Your task to perform on an android device: Add alienware aurora to the cart on target.com Image 0: 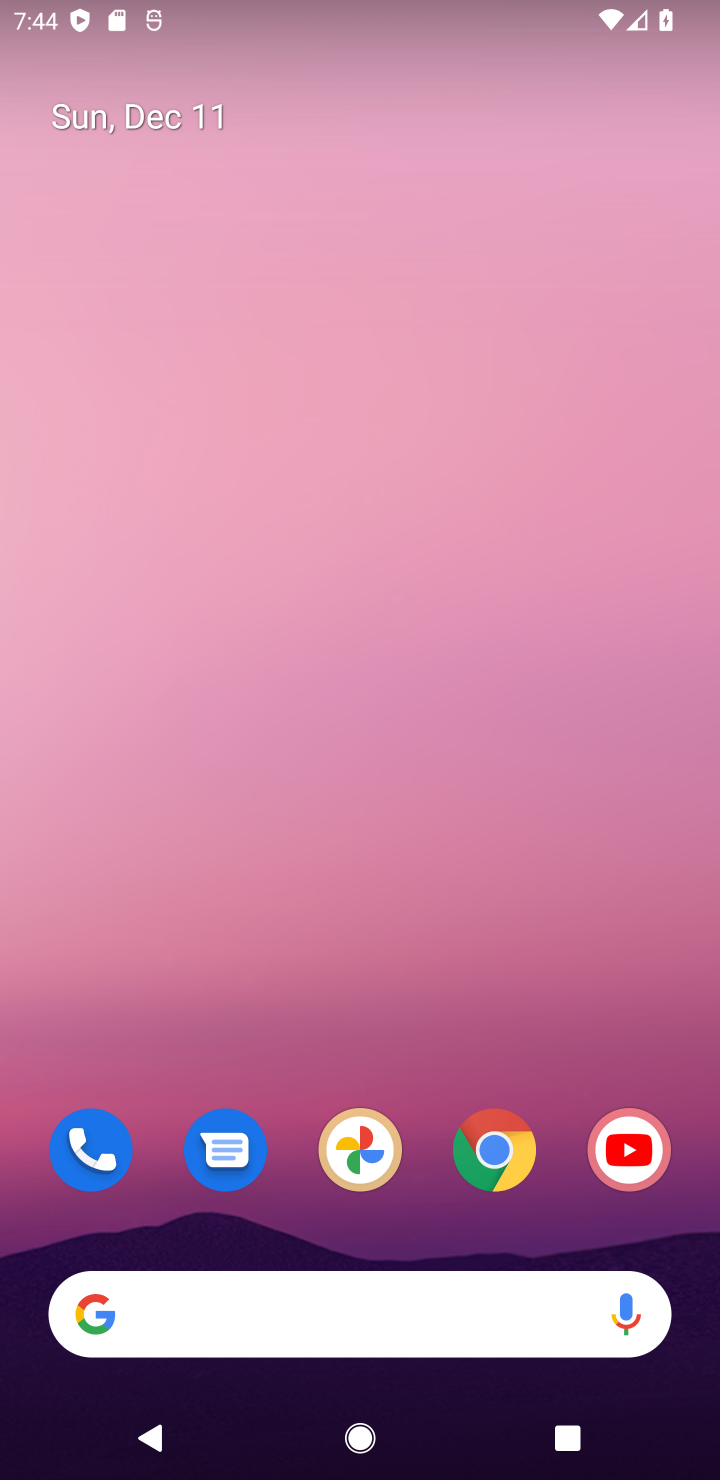
Step 0: click (495, 1152)
Your task to perform on an android device: Add alienware aurora to the cart on target.com Image 1: 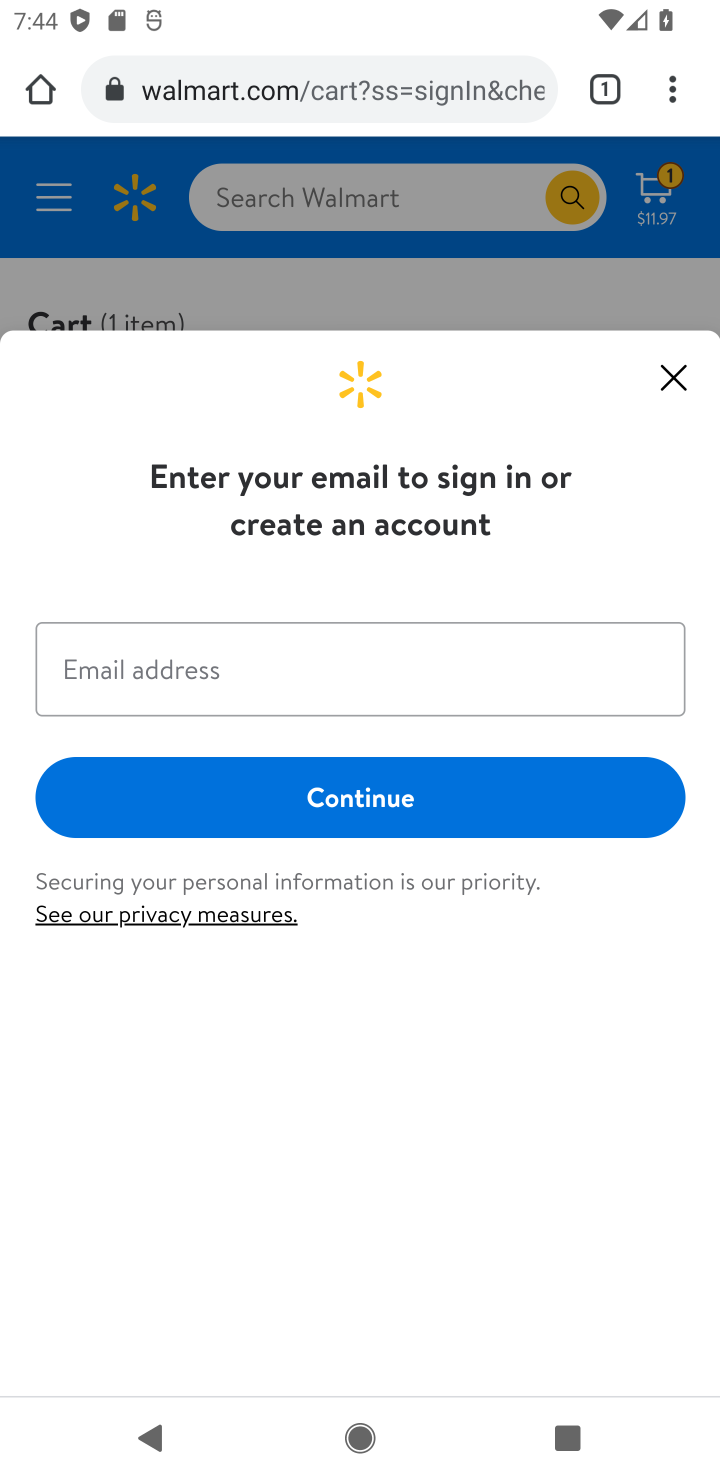
Step 1: click (338, 77)
Your task to perform on an android device: Add alienware aurora to the cart on target.com Image 2: 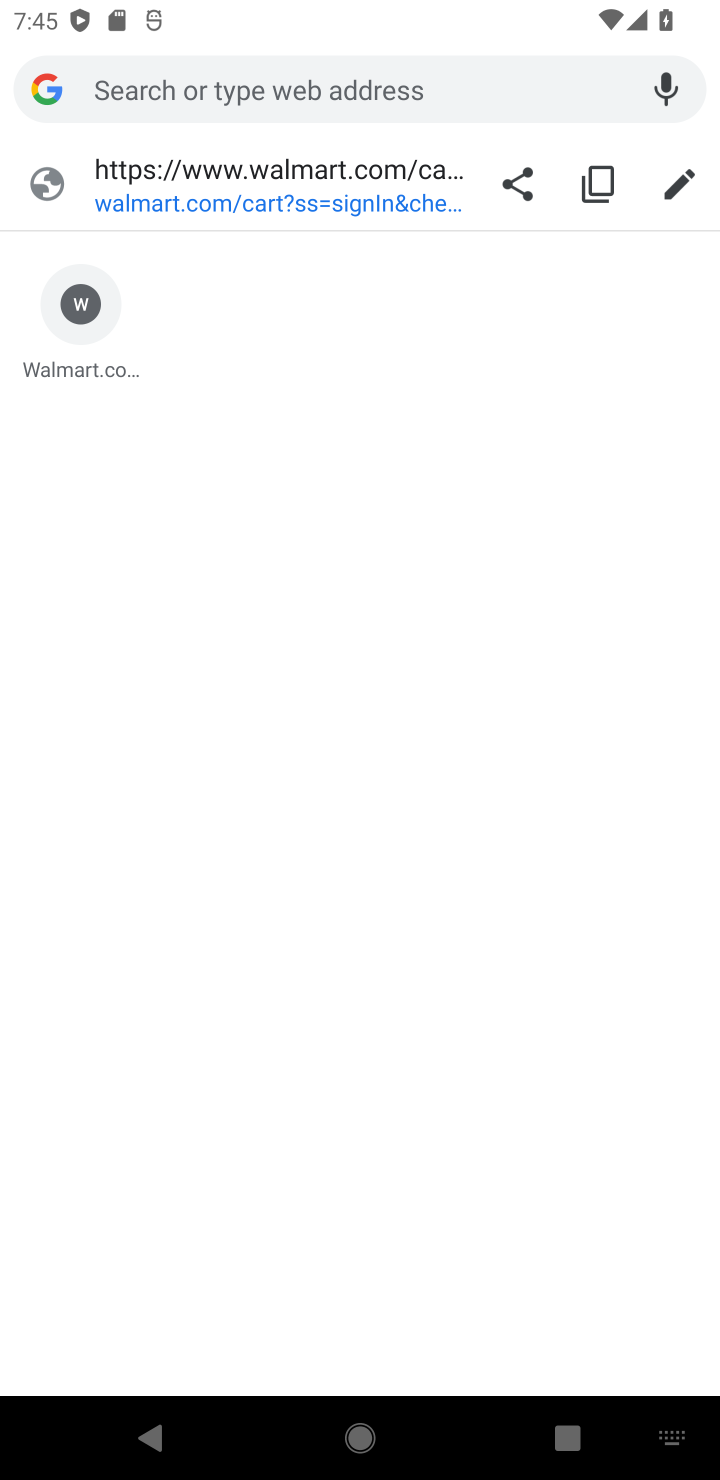
Step 2: type "target.com"
Your task to perform on an android device: Add alienware aurora to the cart on target.com Image 3: 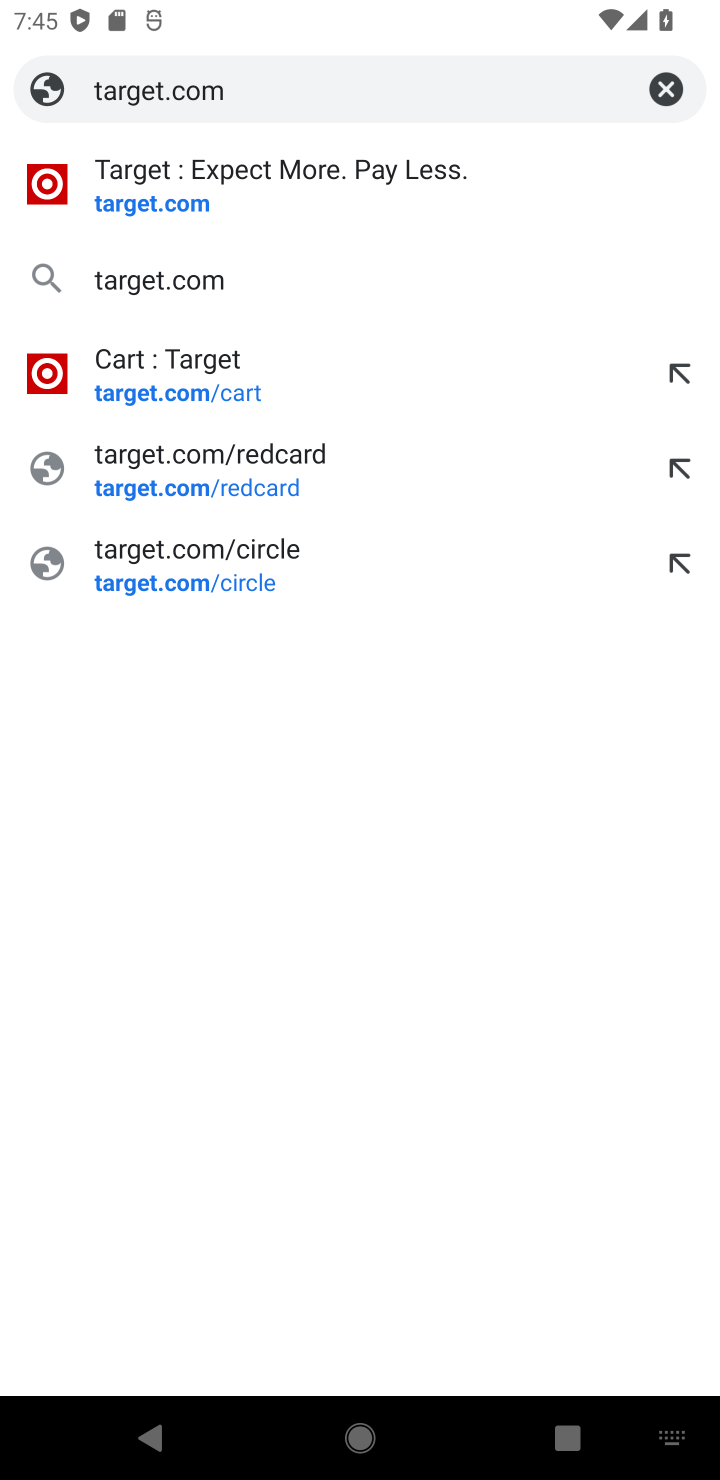
Step 3: click (180, 278)
Your task to perform on an android device: Add alienware aurora to the cart on target.com Image 4: 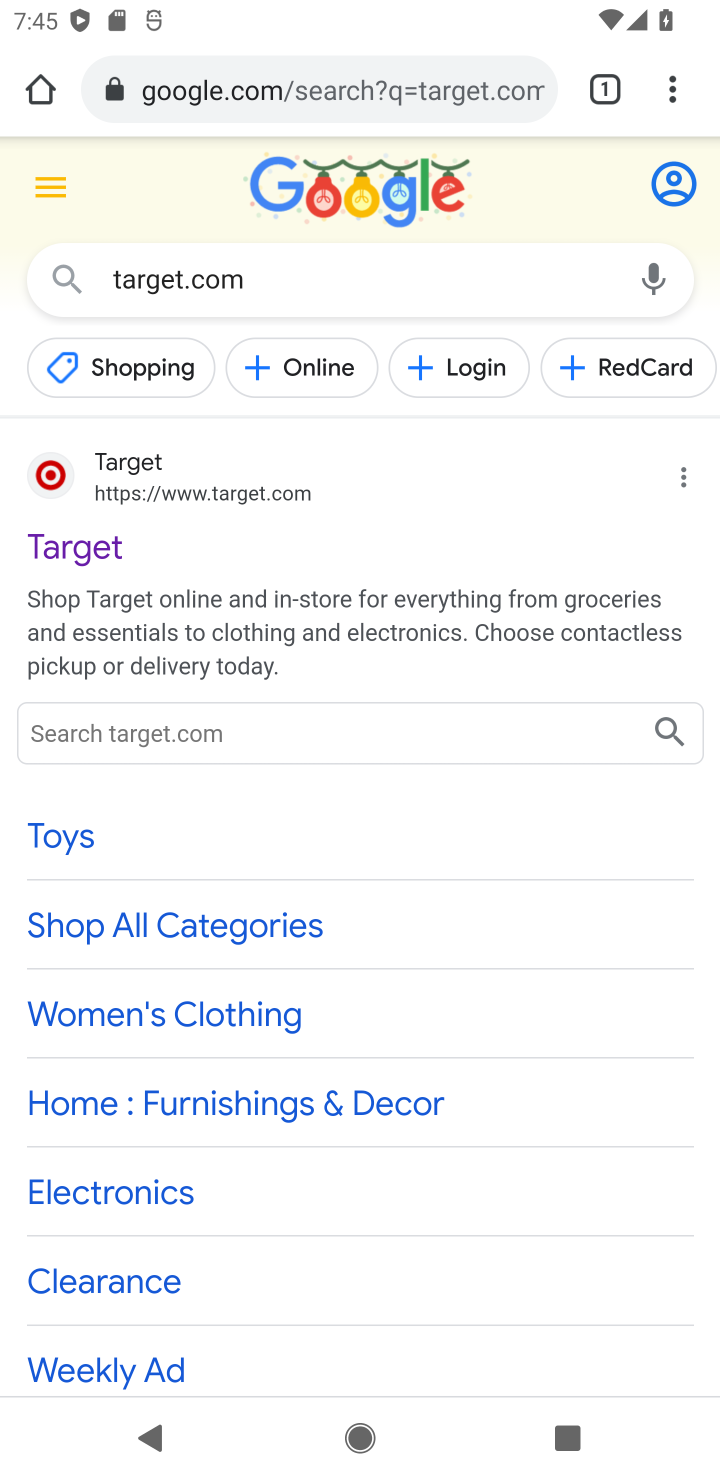
Step 4: click (139, 557)
Your task to perform on an android device: Add alienware aurora to the cart on target.com Image 5: 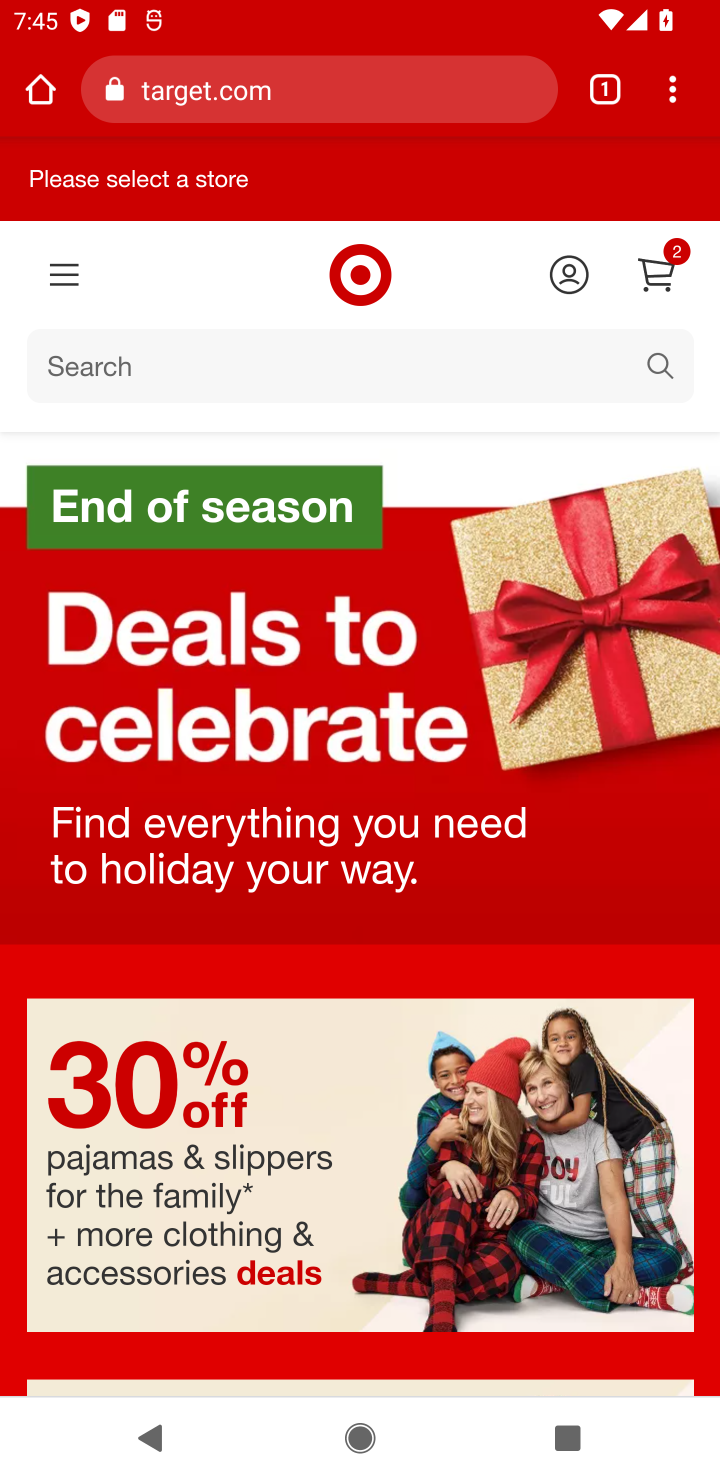
Step 5: click (303, 366)
Your task to perform on an android device: Add alienware aurora to the cart on target.com Image 6: 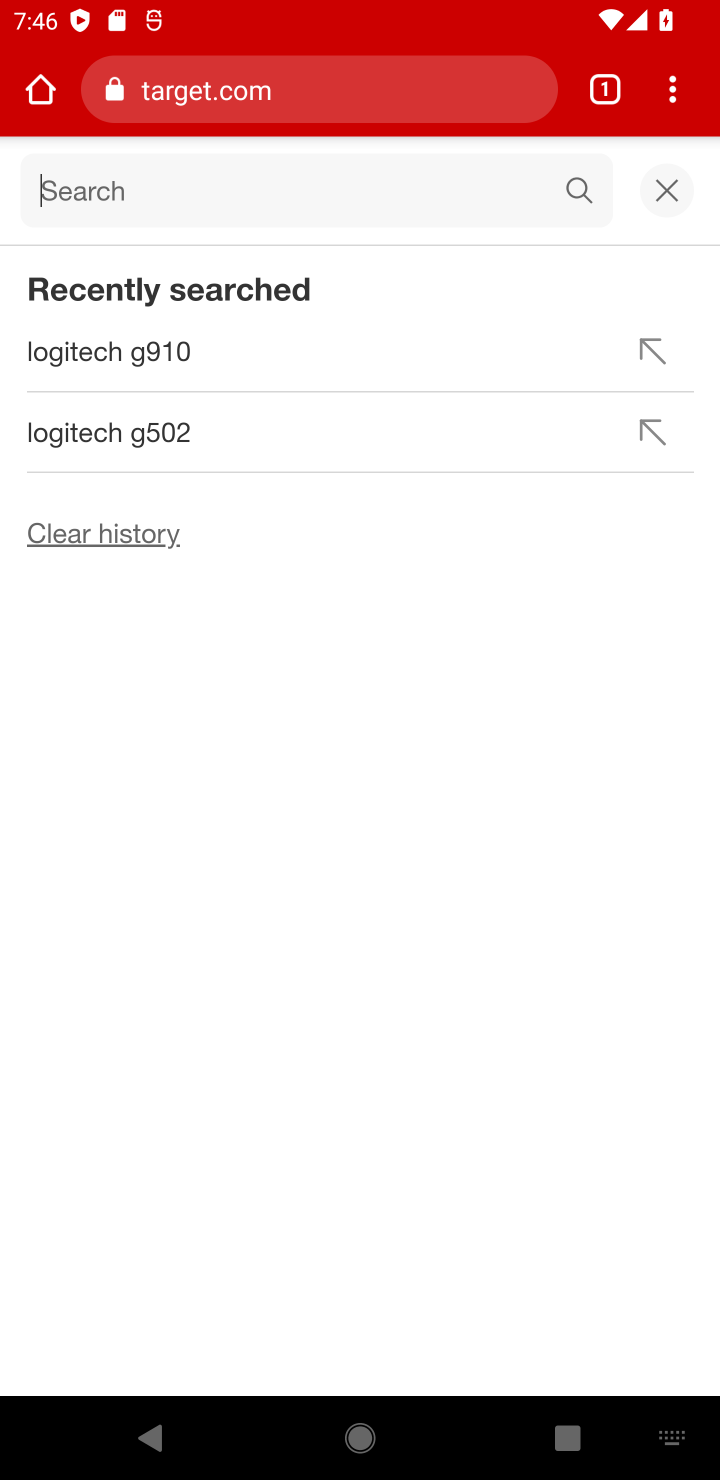
Step 6: type "alienware aurora"
Your task to perform on an android device: Add alienware aurora to the cart on target.com Image 7: 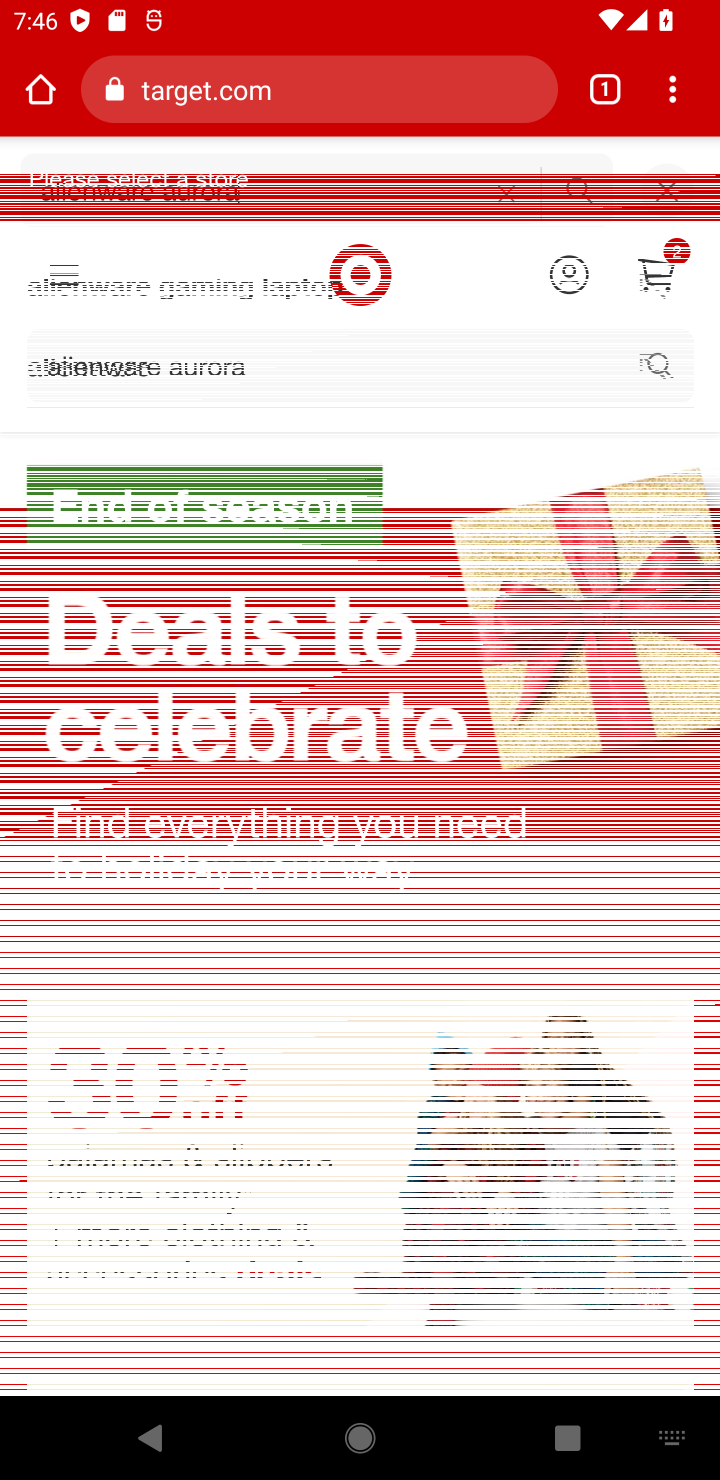
Step 7: click (574, 194)
Your task to perform on an android device: Add alienware aurora to the cart on target.com Image 8: 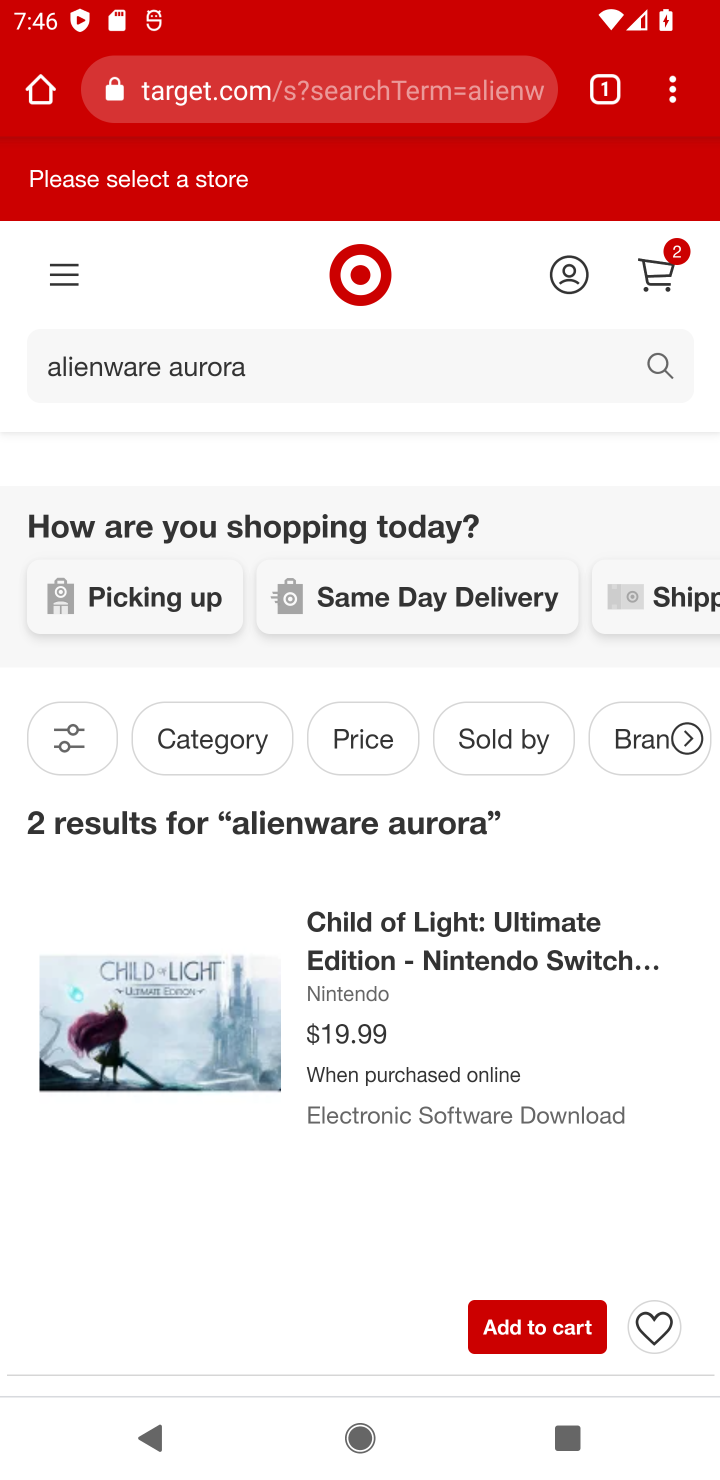
Step 8: click (516, 1317)
Your task to perform on an android device: Add alienware aurora to the cart on target.com Image 9: 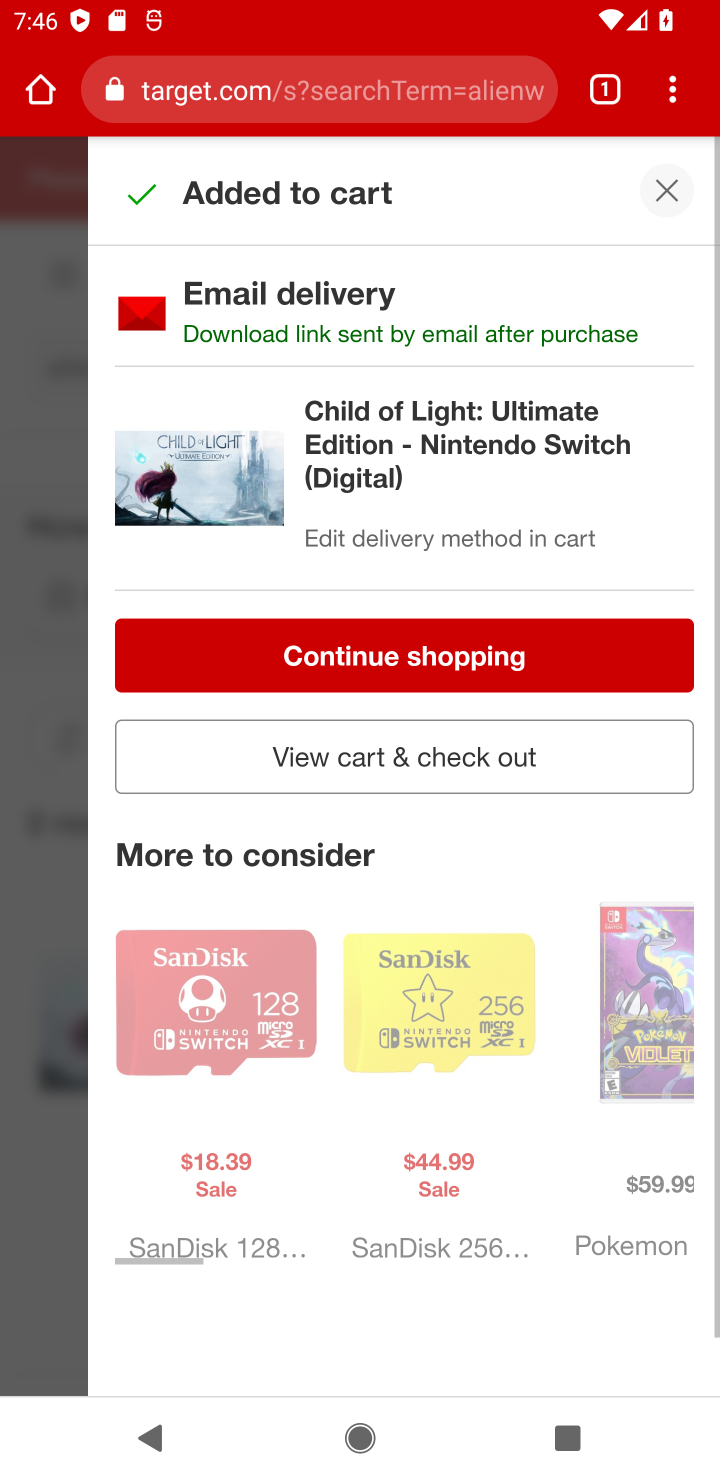
Step 9: task complete